Your task to perform on an android device: check data usage Image 0: 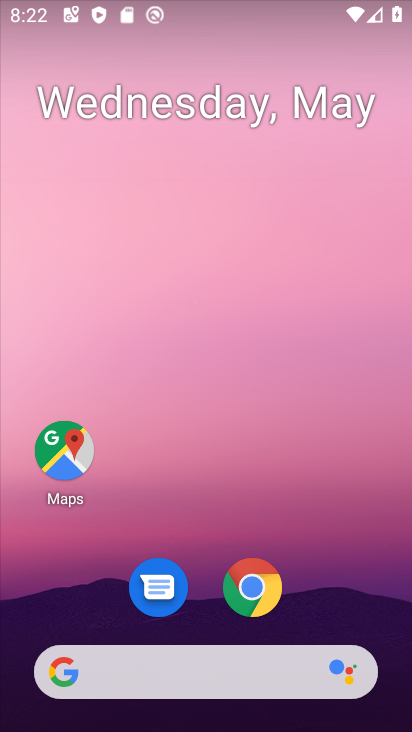
Step 0: drag from (358, 609) to (372, 44)
Your task to perform on an android device: check data usage Image 1: 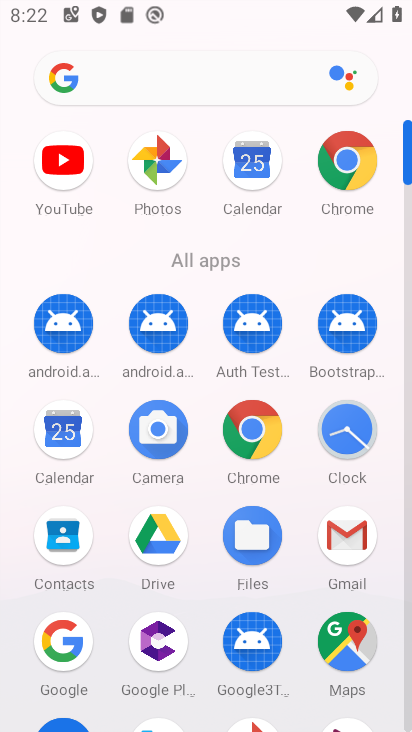
Step 1: click (407, 687)
Your task to perform on an android device: check data usage Image 2: 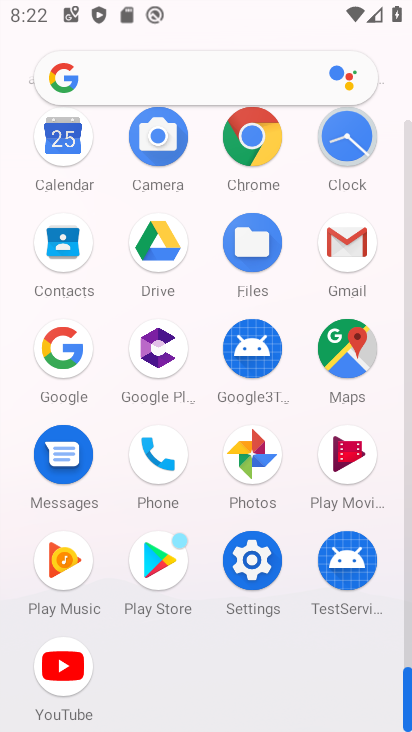
Step 2: click (253, 559)
Your task to perform on an android device: check data usage Image 3: 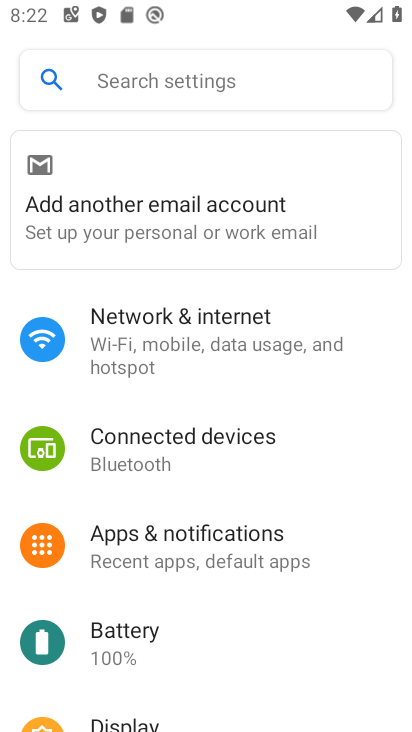
Step 3: click (147, 336)
Your task to perform on an android device: check data usage Image 4: 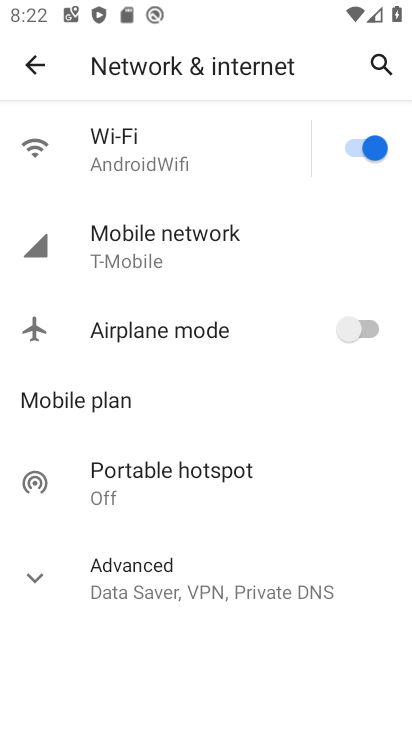
Step 4: click (155, 252)
Your task to perform on an android device: check data usage Image 5: 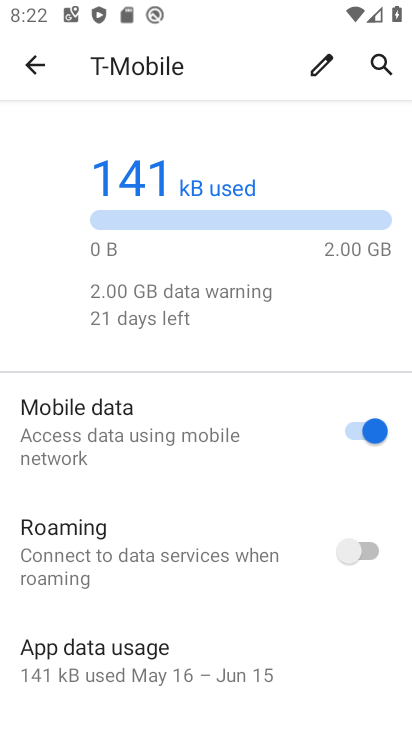
Step 5: task complete